Your task to perform on an android device: open a bookmark in the chrome app Image 0: 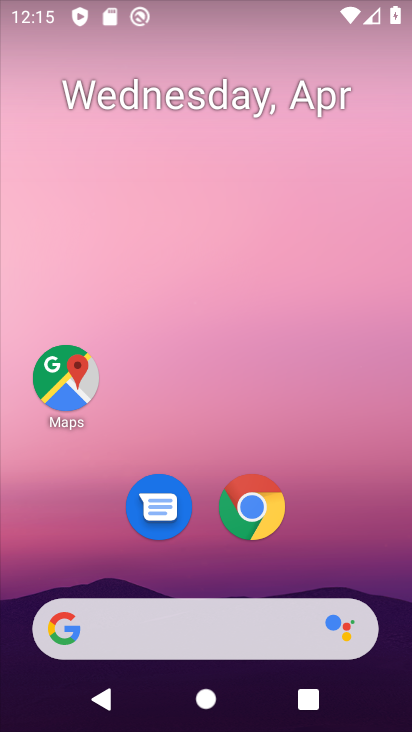
Step 0: click (264, 499)
Your task to perform on an android device: open a bookmark in the chrome app Image 1: 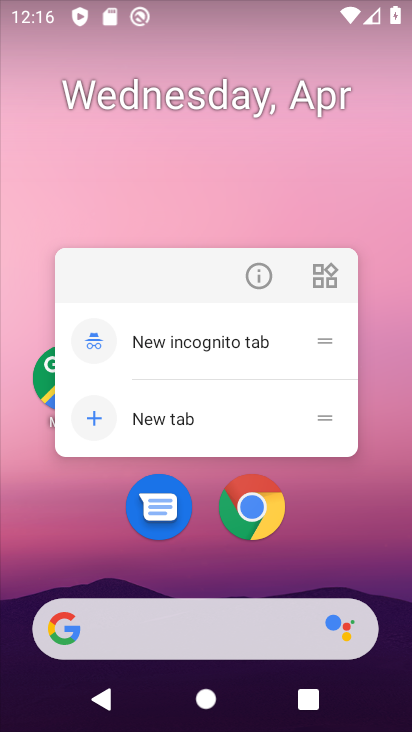
Step 1: click (270, 506)
Your task to perform on an android device: open a bookmark in the chrome app Image 2: 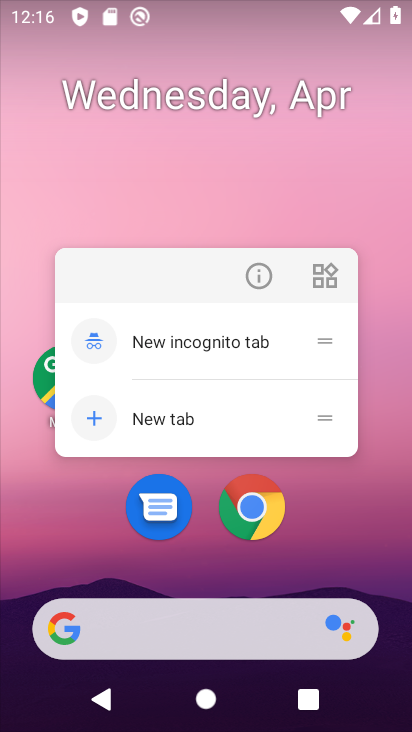
Step 2: click (258, 507)
Your task to perform on an android device: open a bookmark in the chrome app Image 3: 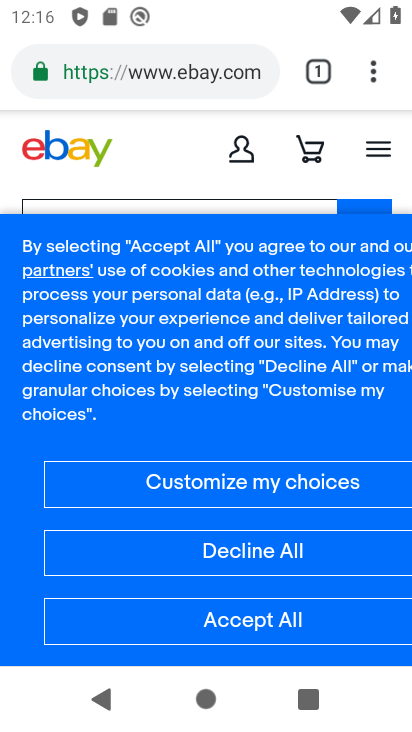
Step 3: click (370, 68)
Your task to perform on an android device: open a bookmark in the chrome app Image 4: 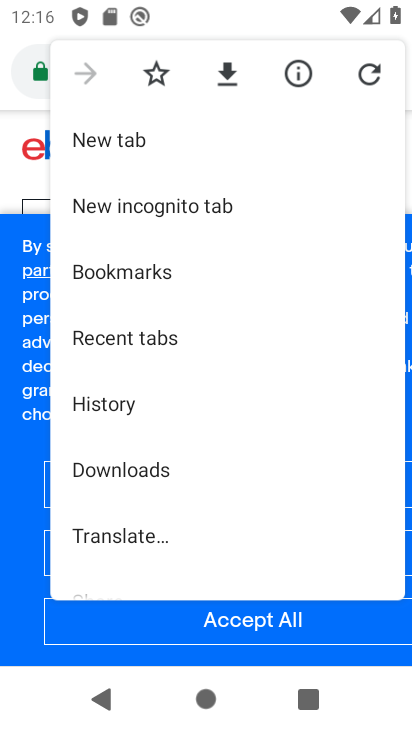
Step 4: click (145, 279)
Your task to perform on an android device: open a bookmark in the chrome app Image 5: 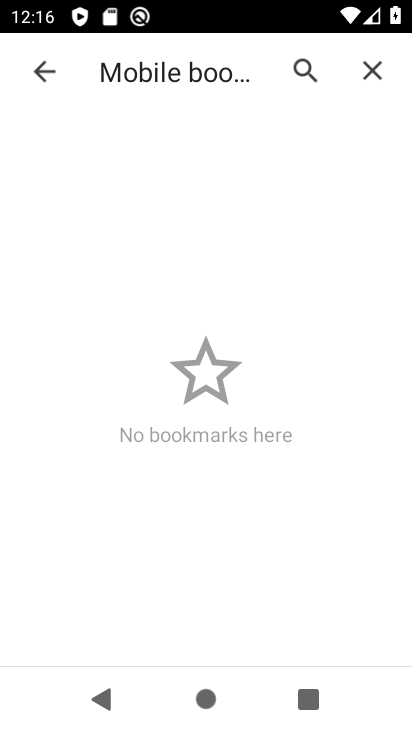
Step 5: task complete